Your task to perform on an android device: Open Reddit.com Image 0: 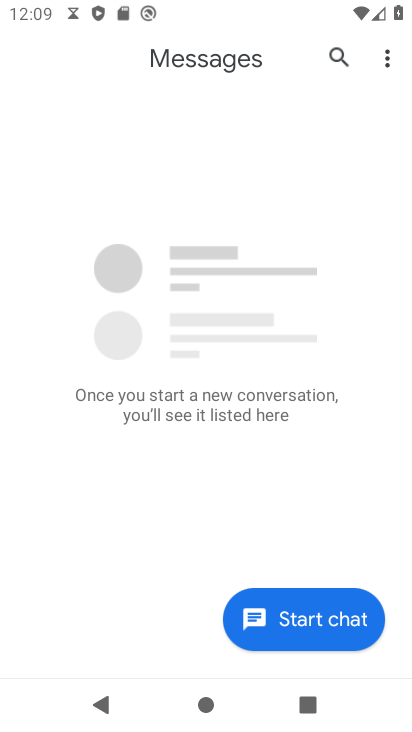
Step 0: press home button
Your task to perform on an android device: Open Reddit.com Image 1: 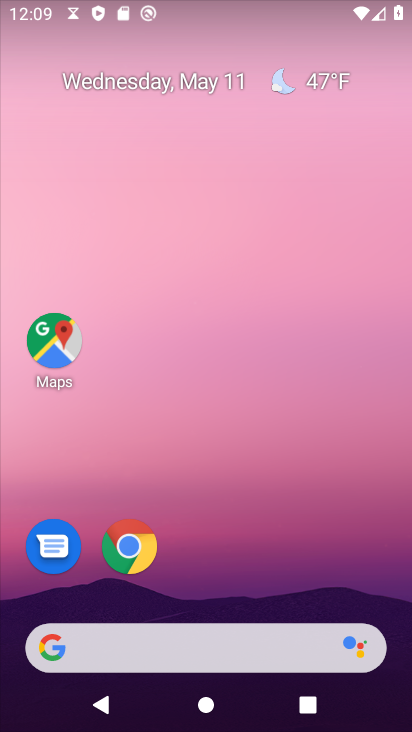
Step 1: click (142, 649)
Your task to perform on an android device: Open Reddit.com Image 2: 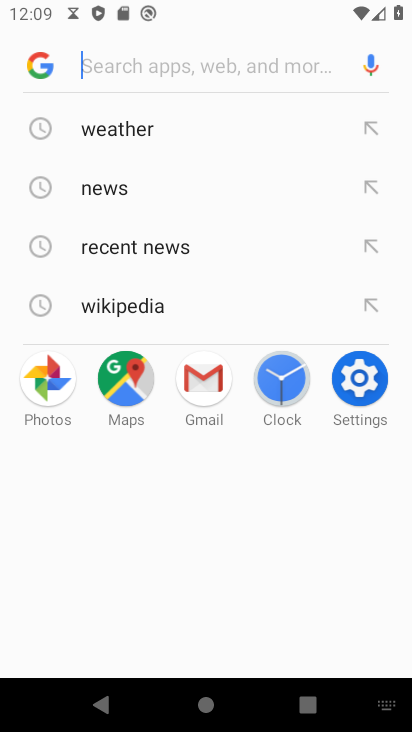
Step 2: type "Reddit.com"
Your task to perform on an android device: Open Reddit.com Image 3: 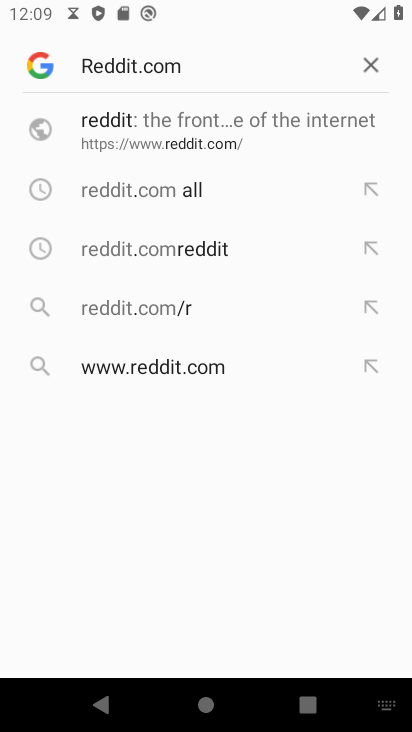
Step 3: click (172, 371)
Your task to perform on an android device: Open Reddit.com Image 4: 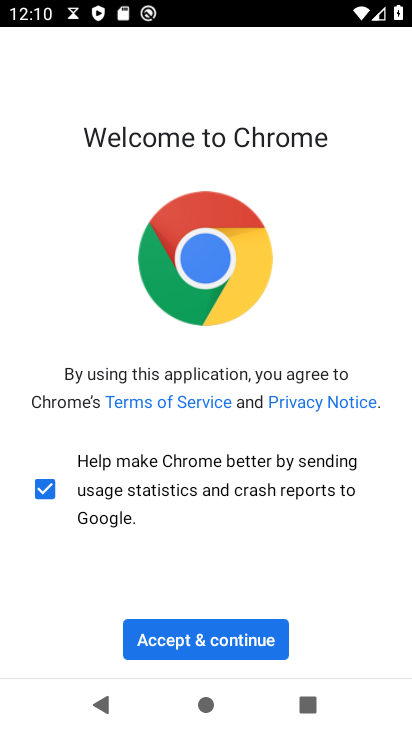
Step 4: click (190, 641)
Your task to perform on an android device: Open Reddit.com Image 5: 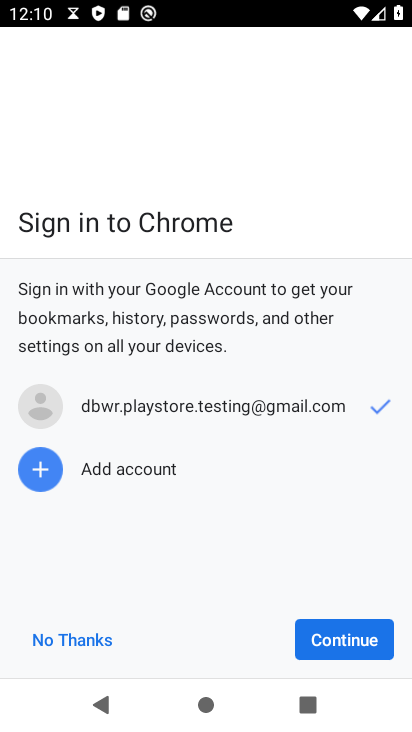
Step 5: click (350, 628)
Your task to perform on an android device: Open Reddit.com Image 6: 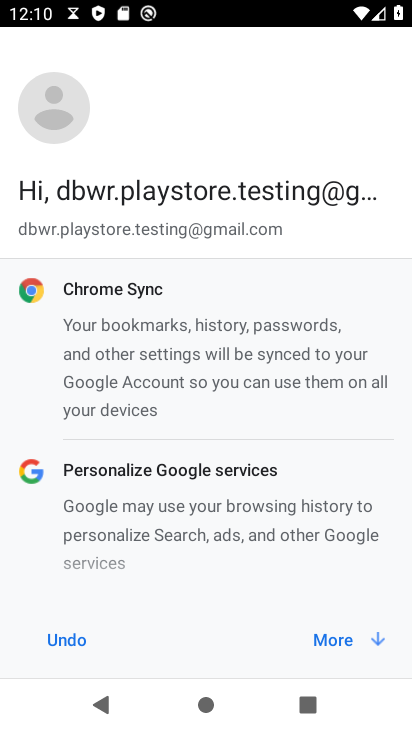
Step 6: click (350, 628)
Your task to perform on an android device: Open Reddit.com Image 7: 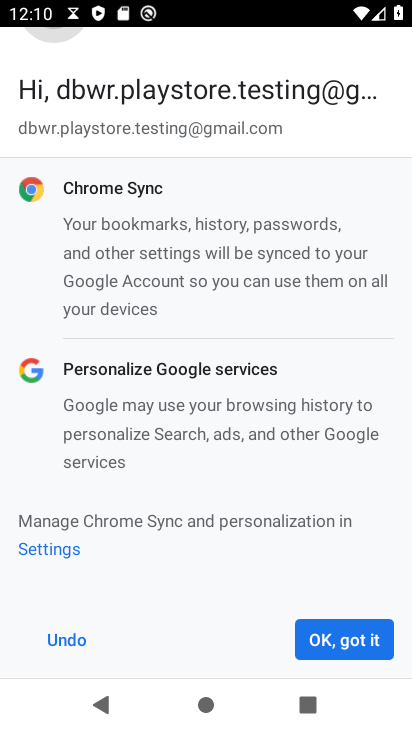
Step 7: click (350, 628)
Your task to perform on an android device: Open Reddit.com Image 8: 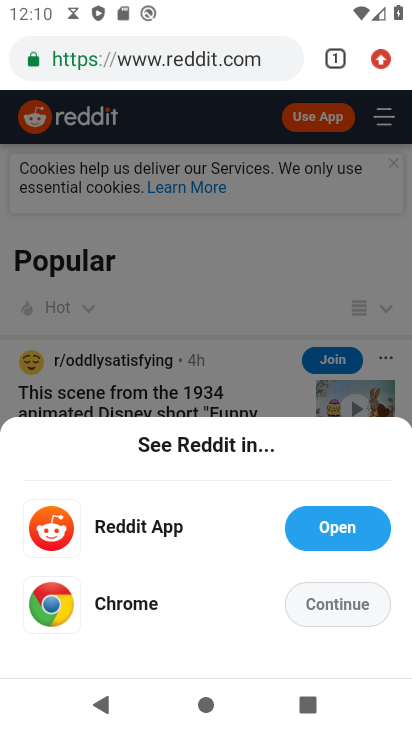
Step 8: click (336, 604)
Your task to perform on an android device: Open Reddit.com Image 9: 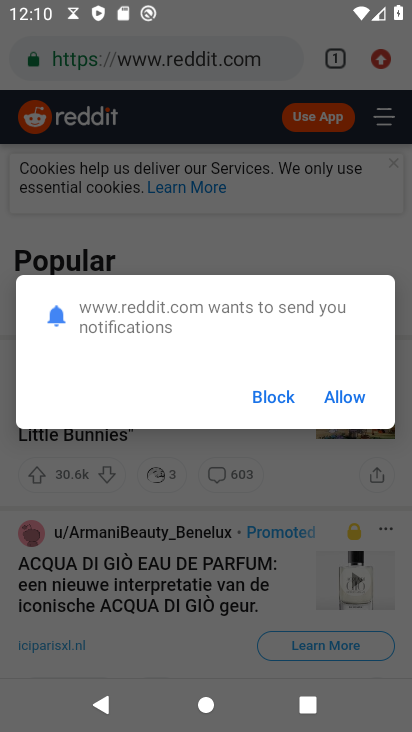
Step 9: task complete